Your task to perform on an android device: Go to battery settings Image 0: 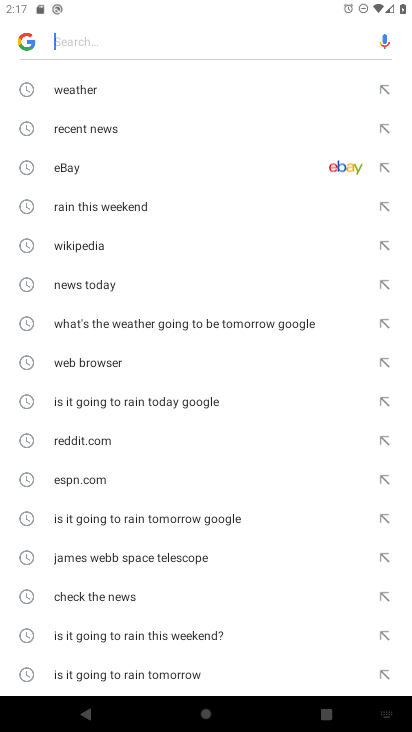
Step 0: press back button
Your task to perform on an android device: Go to battery settings Image 1: 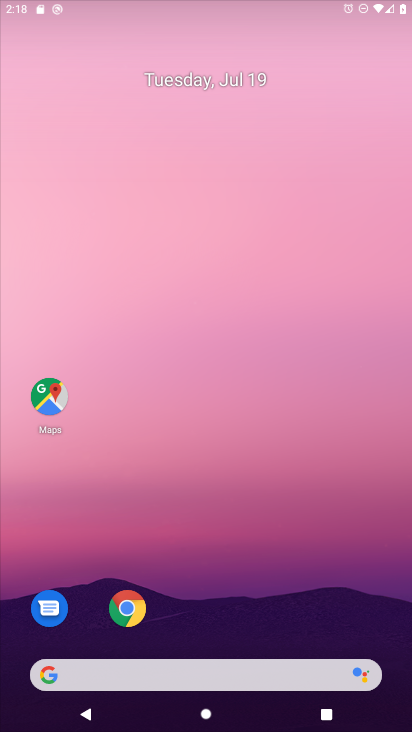
Step 1: drag from (247, 582) to (313, 188)
Your task to perform on an android device: Go to battery settings Image 2: 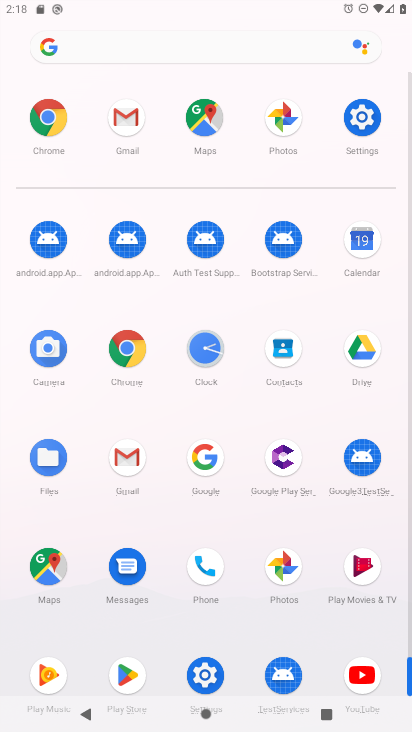
Step 2: click (202, 670)
Your task to perform on an android device: Go to battery settings Image 3: 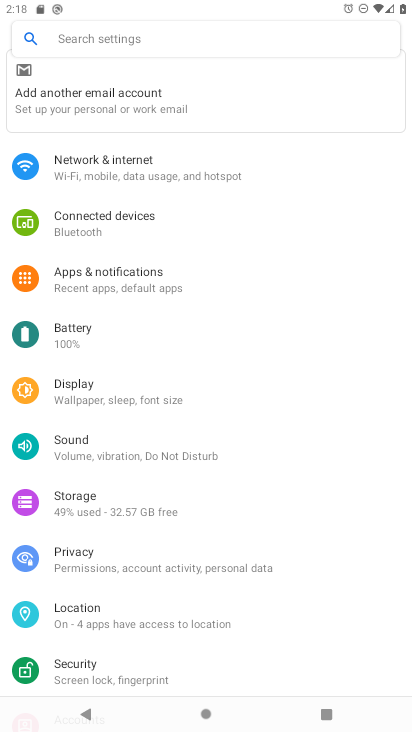
Step 3: click (119, 341)
Your task to perform on an android device: Go to battery settings Image 4: 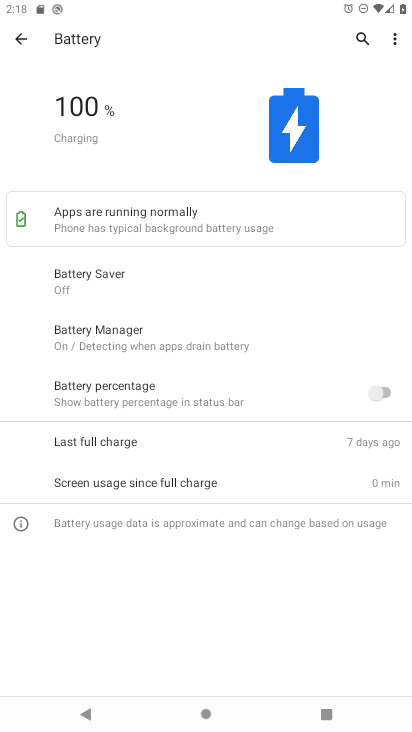
Step 4: task complete